Your task to perform on an android device: Go to Google Image 0: 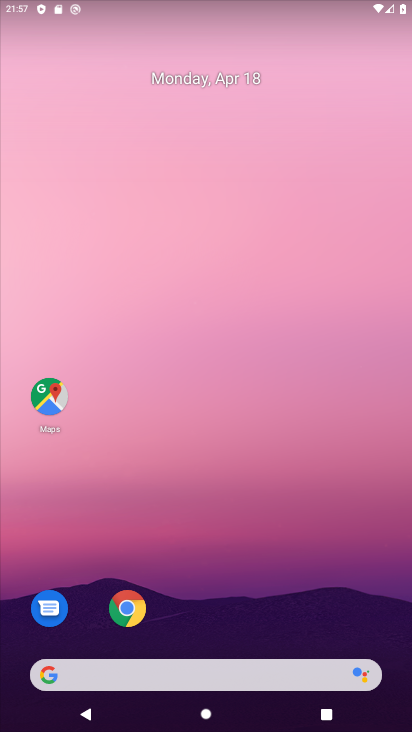
Step 0: drag from (247, 605) to (224, 79)
Your task to perform on an android device: Go to Google Image 1: 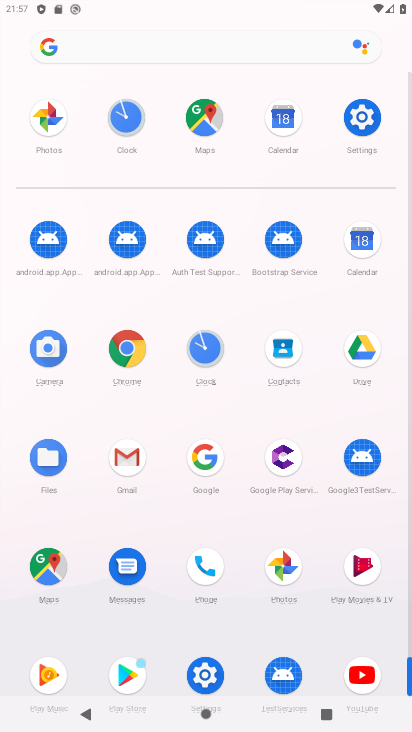
Step 1: click (208, 457)
Your task to perform on an android device: Go to Google Image 2: 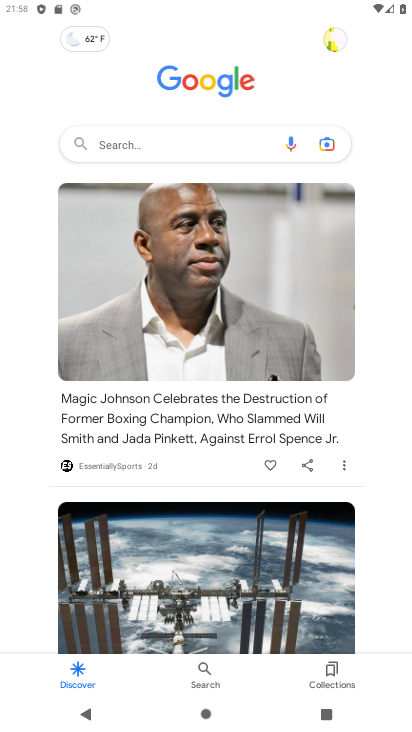
Step 2: task complete